Your task to perform on an android device: When is my next meeting? Image 0: 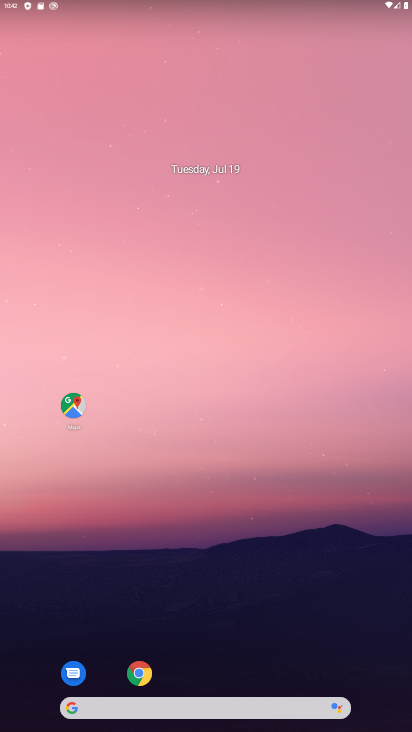
Step 0: drag from (194, 664) to (215, 87)
Your task to perform on an android device: When is my next meeting? Image 1: 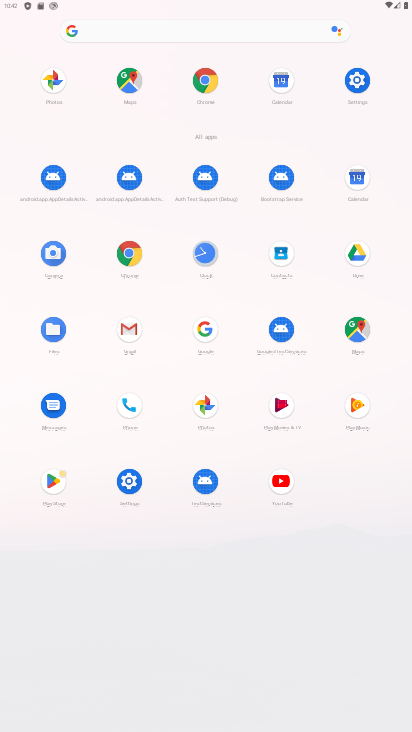
Step 1: click (362, 183)
Your task to perform on an android device: When is my next meeting? Image 2: 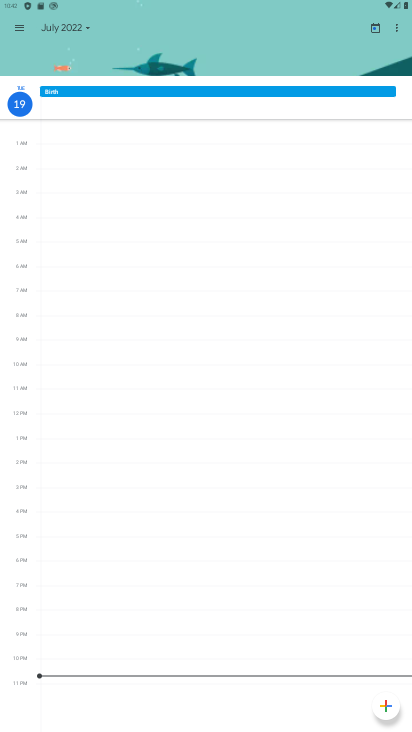
Step 2: click (18, 29)
Your task to perform on an android device: When is my next meeting? Image 3: 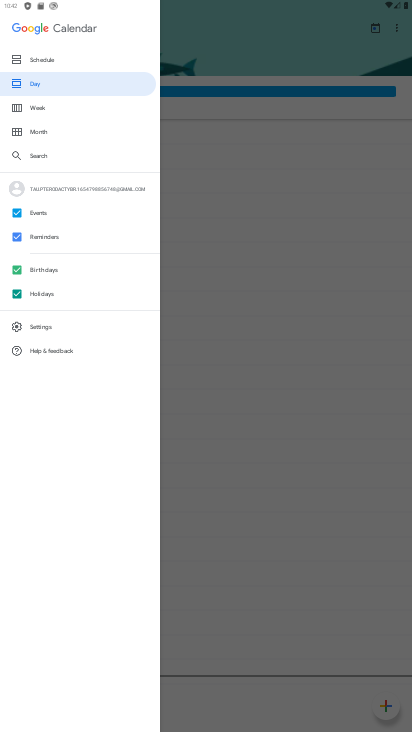
Step 3: click (50, 62)
Your task to perform on an android device: When is my next meeting? Image 4: 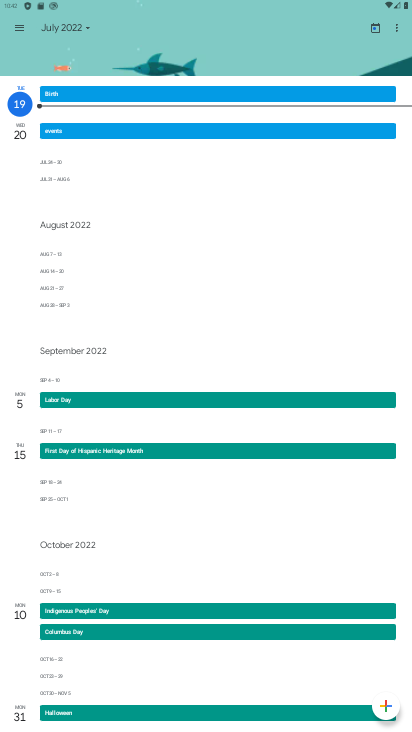
Step 4: click (87, 30)
Your task to perform on an android device: When is my next meeting? Image 5: 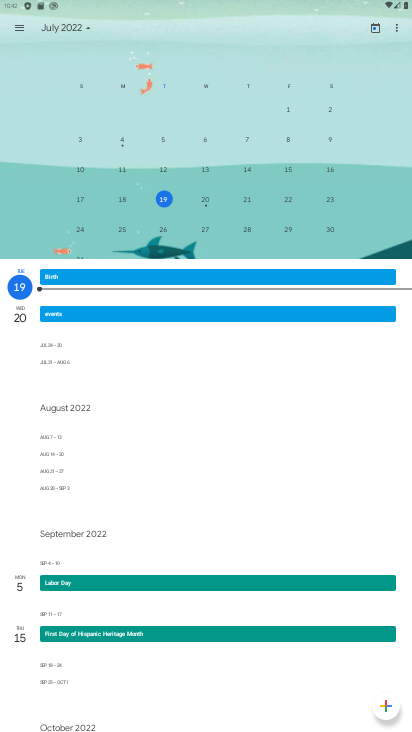
Step 5: click (244, 202)
Your task to perform on an android device: When is my next meeting? Image 6: 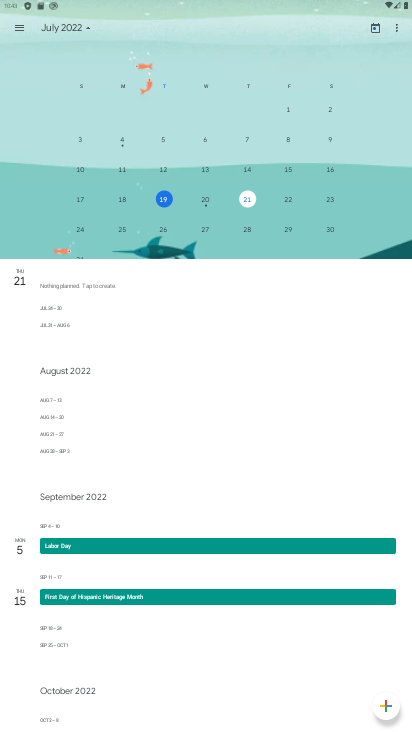
Step 6: task complete